Your task to perform on an android device: Go to display settings Image 0: 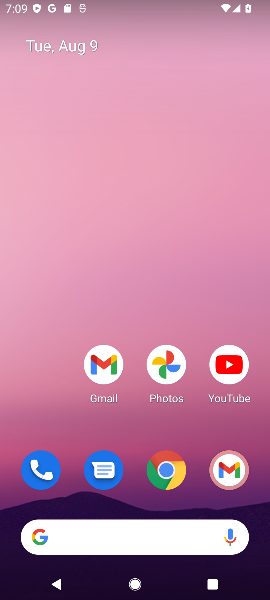
Step 0: drag from (98, 568) to (133, 182)
Your task to perform on an android device: Go to display settings Image 1: 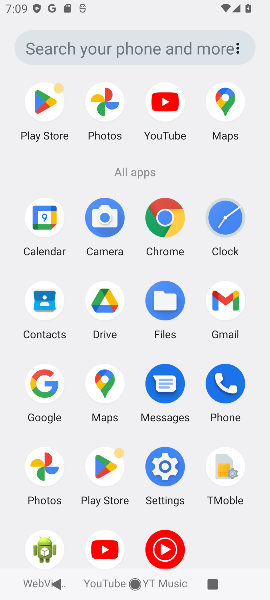
Step 1: click (165, 484)
Your task to perform on an android device: Go to display settings Image 2: 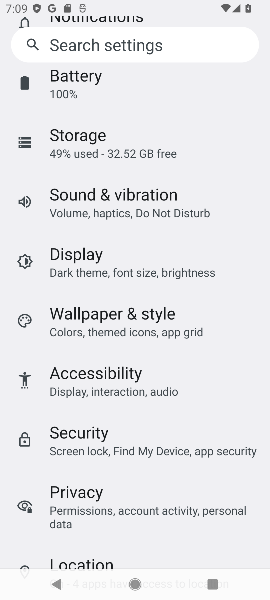
Step 2: click (113, 281)
Your task to perform on an android device: Go to display settings Image 3: 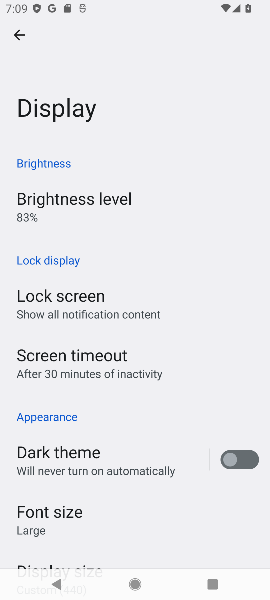
Step 3: task complete